Your task to perform on an android device: toggle translation in the chrome app Image 0: 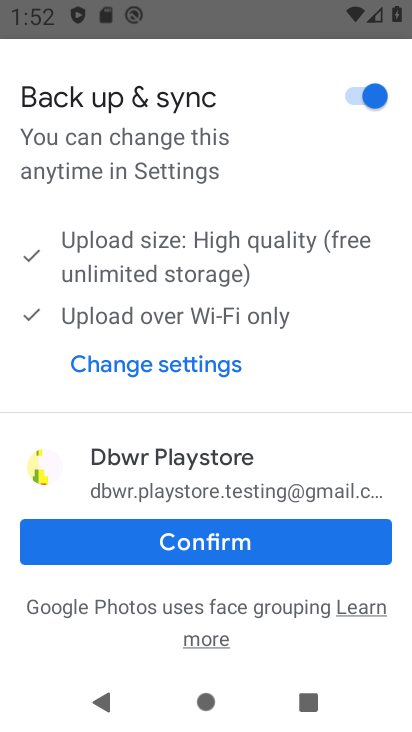
Step 0: press home button
Your task to perform on an android device: toggle translation in the chrome app Image 1: 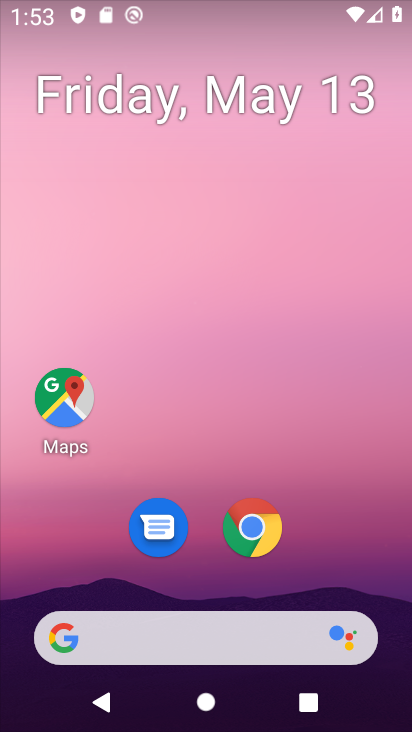
Step 1: click (252, 521)
Your task to perform on an android device: toggle translation in the chrome app Image 2: 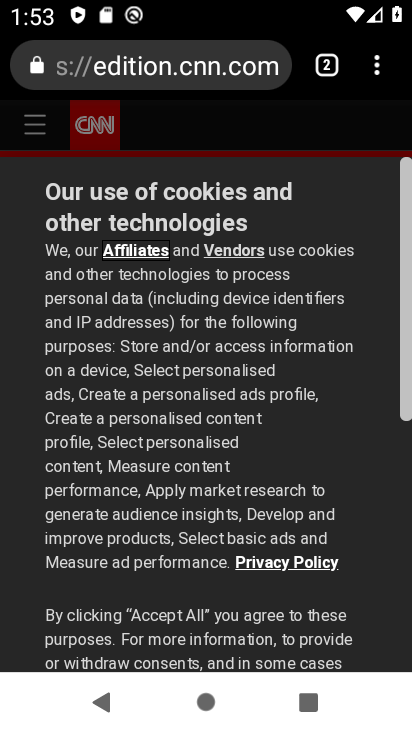
Step 2: click (370, 63)
Your task to perform on an android device: toggle translation in the chrome app Image 3: 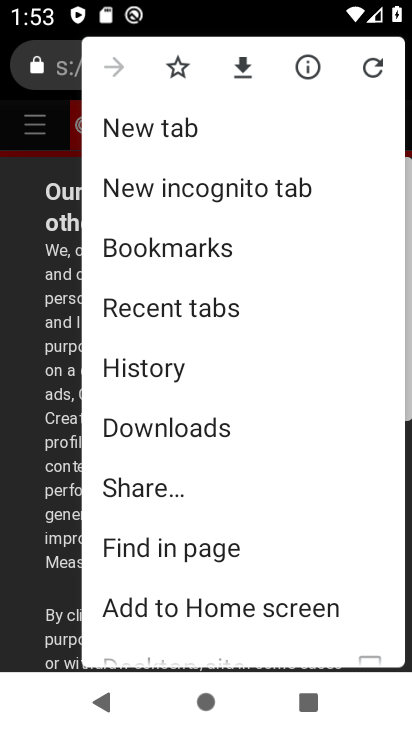
Step 3: drag from (168, 622) to (299, 101)
Your task to perform on an android device: toggle translation in the chrome app Image 4: 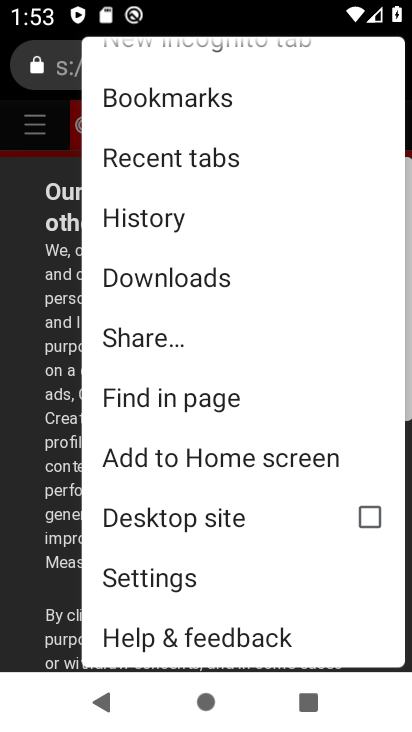
Step 4: click (187, 594)
Your task to perform on an android device: toggle translation in the chrome app Image 5: 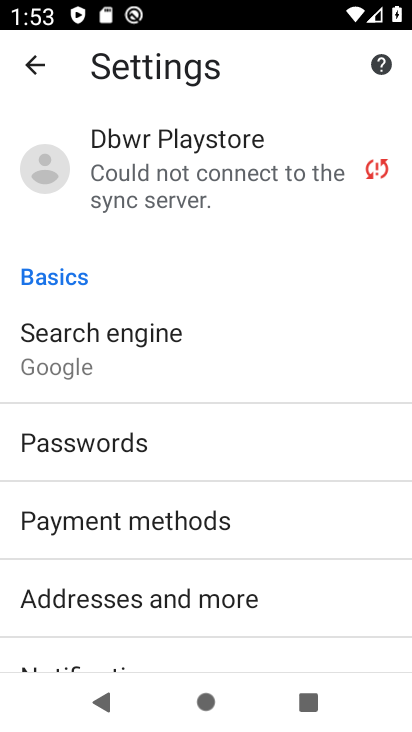
Step 5: drag from (155, 577) to (342, 127)
Your task to perform on an android device: toggle translation in the chrome app Image 6: 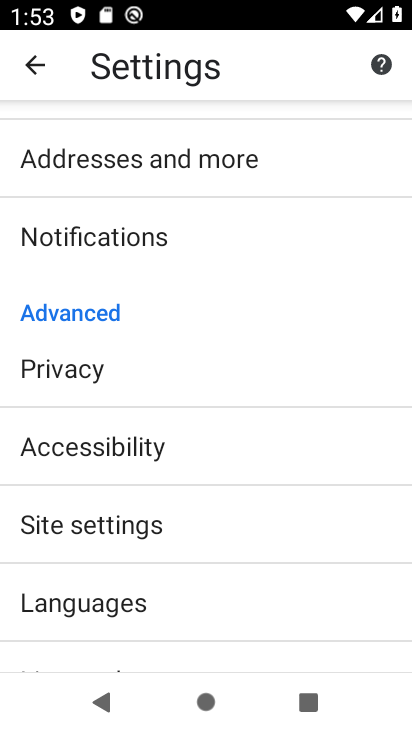
Step 6: click (126, 581)
Your task to perform on an android device: toggle translation in the chrome app Image 7: 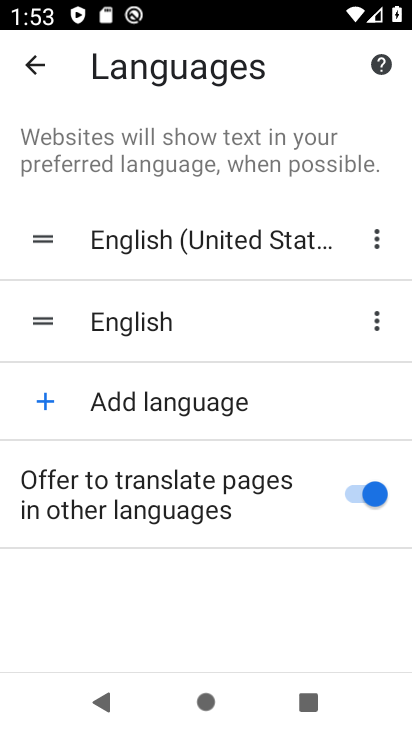
Step 7: click (377, 489)
Your task to perform on an android device: toggle translation in the chrome app Image 8: 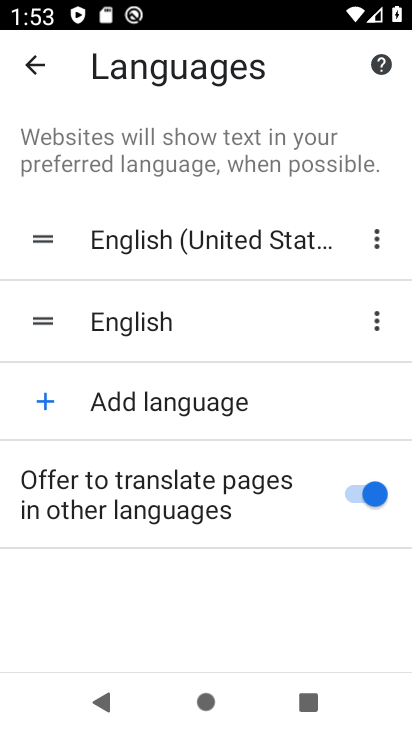
Step 8: click (377, 489)
Your task to perform on an android device: toggle translation in the chrome app Image 9: 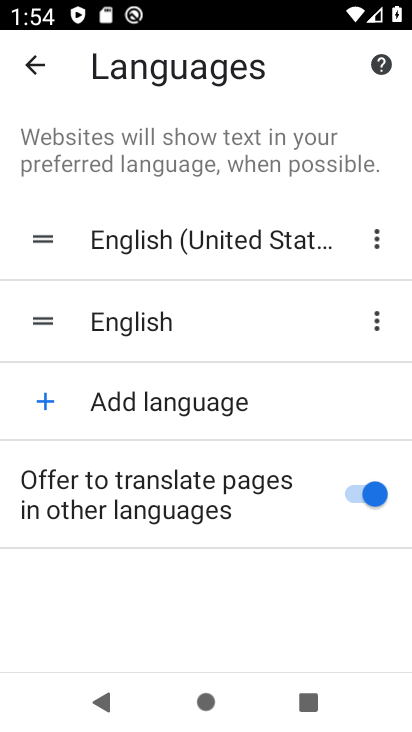
Step 9: task complete